Your task to perform on an android device: toggle location history Image 0: 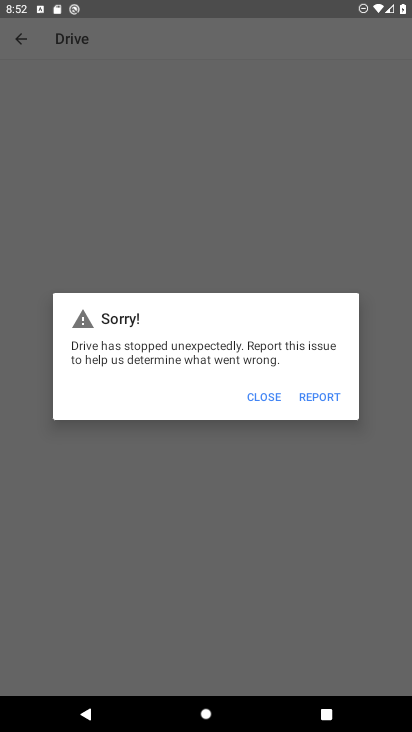
Step 0: press home button
Your task to perform on an android device: toggle location history Image 1: 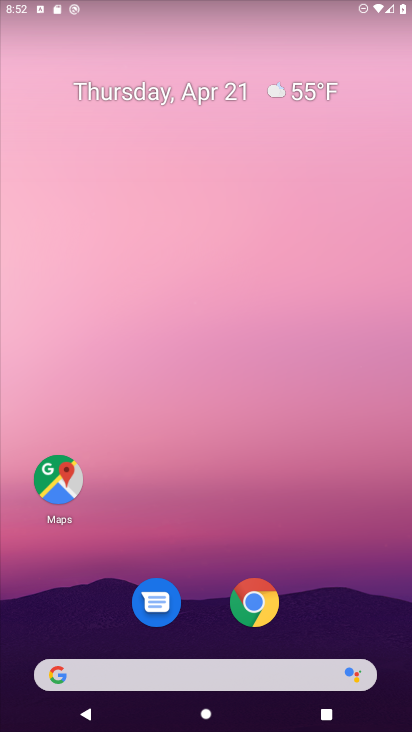
Step 1: drag from (211, 631) to (206, 293)
Your task to perform on an android device: toggle location history Image 2: 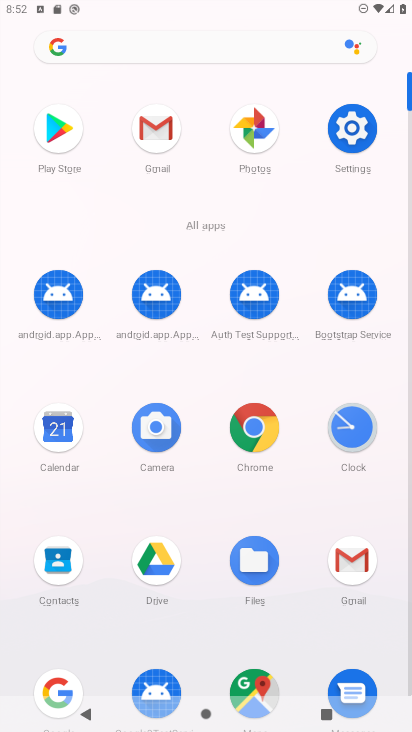
Step 2: click (362, 114)
Your task to perform on an android device: toggle location history Image 3: 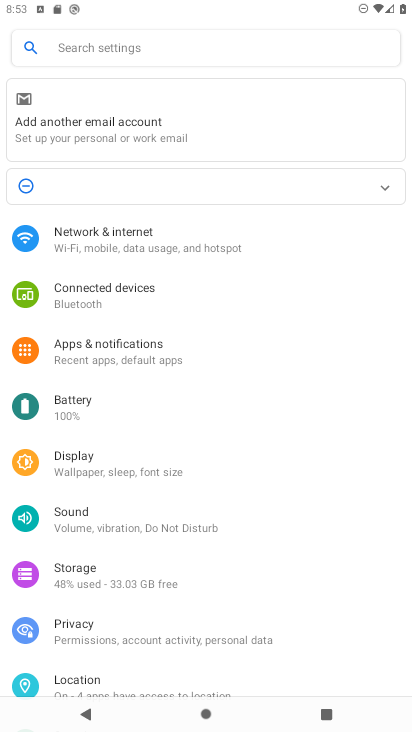
Step 3: click (109, 688)
Your task to perform on an android device: toggle location history Image 4: 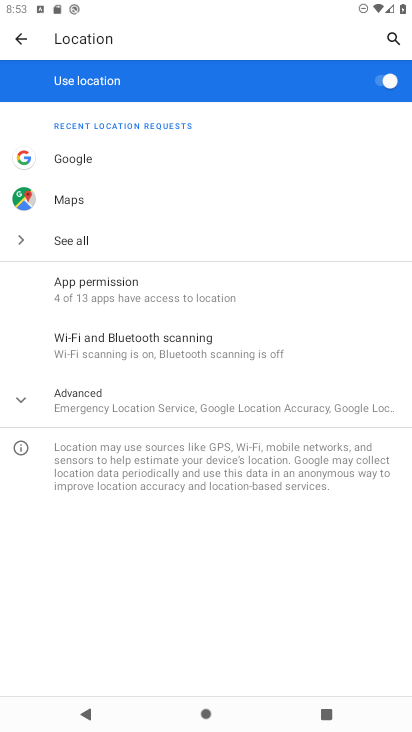
Step 4: click (184, 408)
Your task to perform on an android device: toggle location history Image 5: 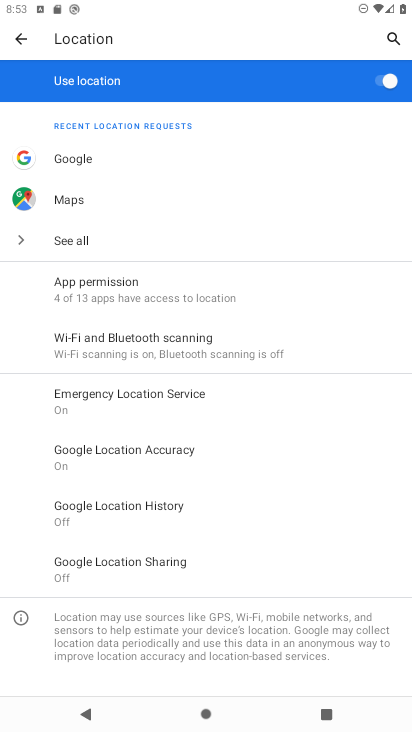
Step 5: click (180, 498)
Your task to perform on an android device: toggle location history Image 6: 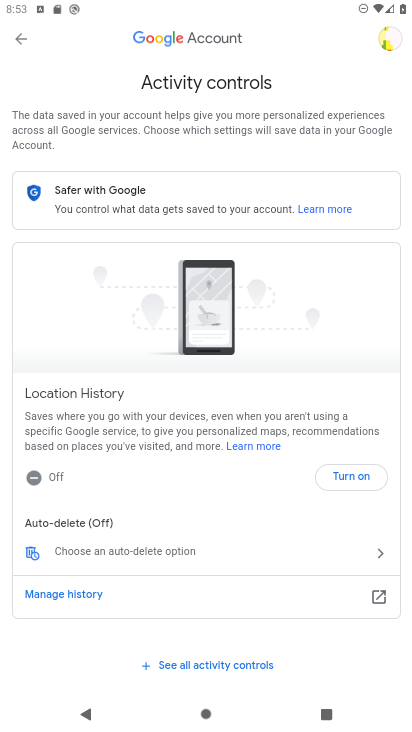
Step 6: click (358, 479)
Your task to perform on an android device: toggle location history Image 7: 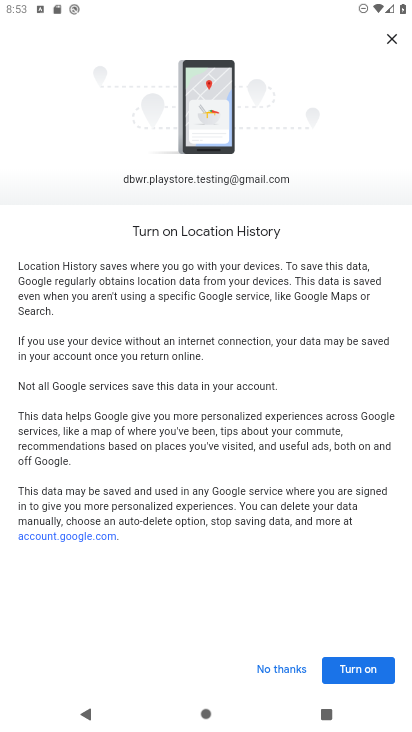
Step 7: click (372, 673)
Your task to perform on an android device: toggle location history Image 8: 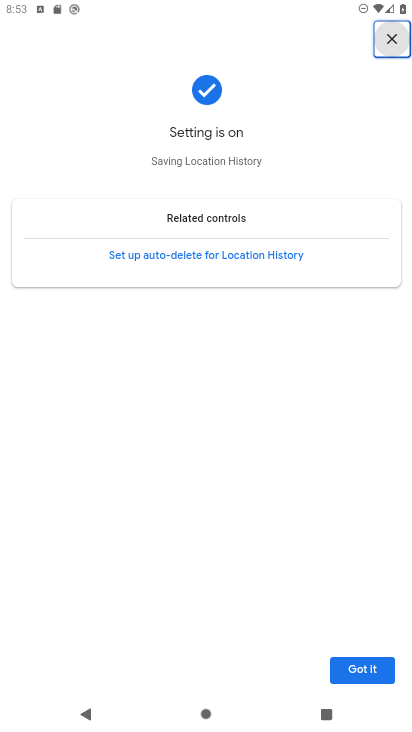
Step 8: click (372, 673)
Your task to perform on an android device: toggle location history Image 9: 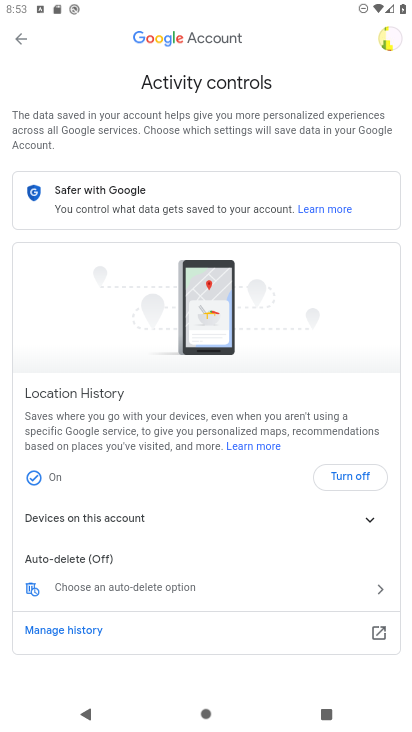
Step 9: task complete